Your task to perform on an android device: turn off javascript in the chrome app Image 0: 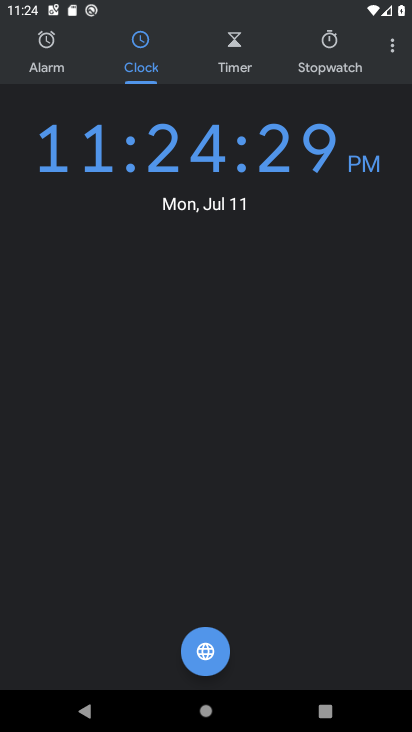
Step 0: press back button
Your task to perform on an android device: turn off javascript in the chrome app Image 1: 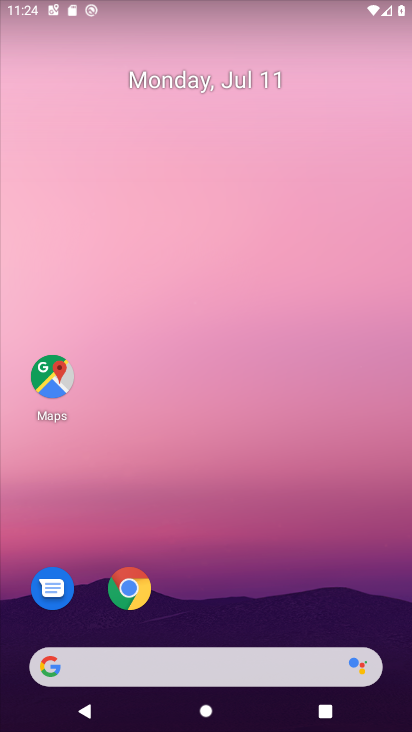
Step 1: drag from (247, 678) to (101, 165)
Your task to perform on an android device: turn off javascript in the chrome app Image 2: 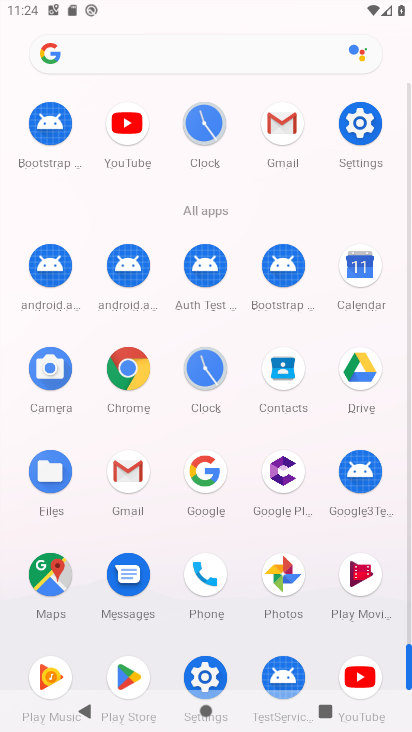
Step 2: click (123, 366)
Your task to perform on an android device: turn off javascript in the chrome app Image 3: 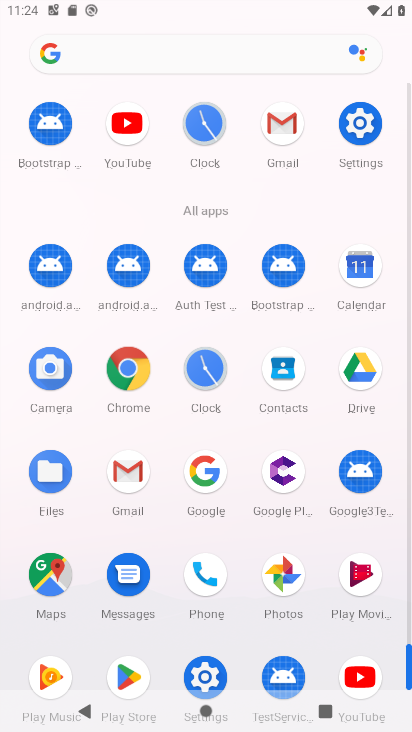
Step 3: click (127, 362)
Your task to perform on an android device: turn off javascript in the chrome app Image 4: 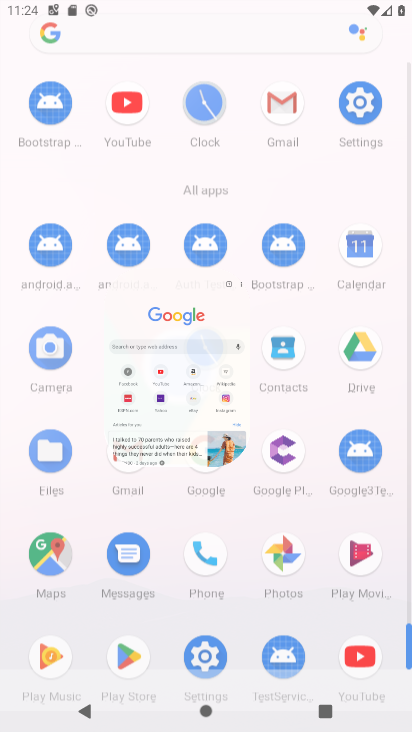
Step 4: click (124, 356)
Your task to perform on an android device: turn off javascript in the chrome app Image 5: 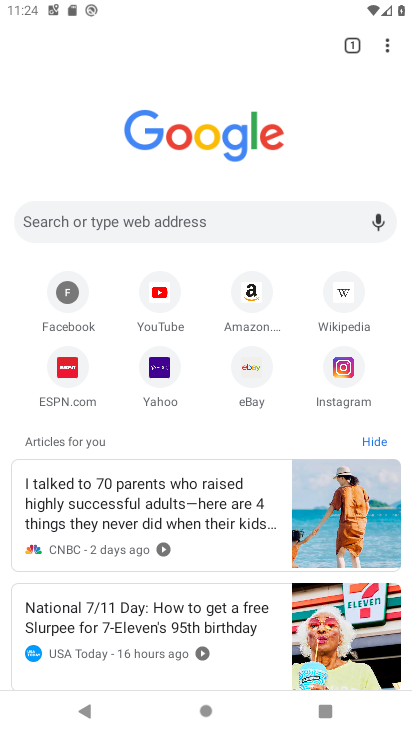
Step 5: click (384, 55)
Your task to perform on an android device: turn off javascript in the chrome app Image 6: 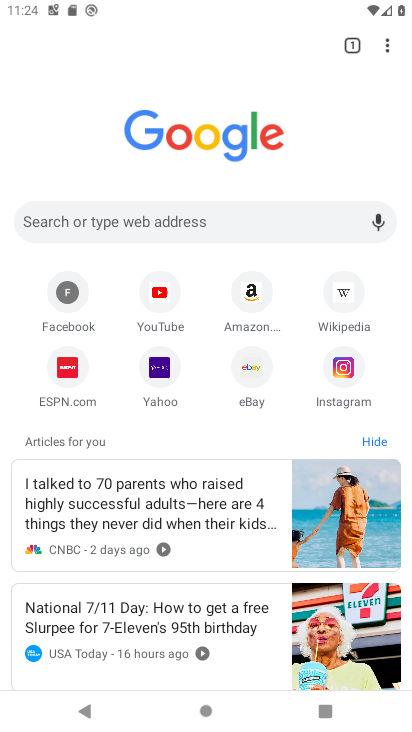
Step 6: click (389, 45)
Your task to perform on an android device: turn off javascript in the chrome app Image 7: 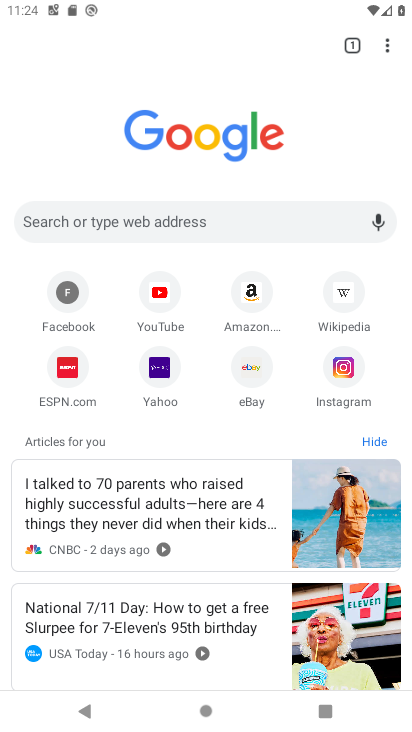
Step 7: click (387, 42)
Your task to perform on an android device: turn off javascript in the chrome app Image 8: 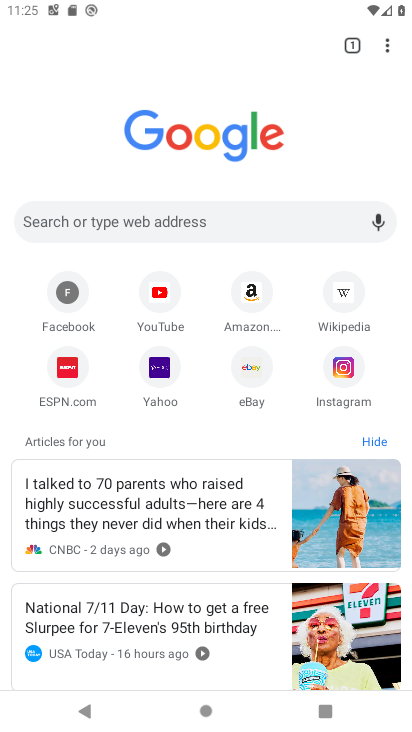
Step 8: click (388, 49)
Your task to perform on an android device: turn off javascript in the chrome app Image 9: 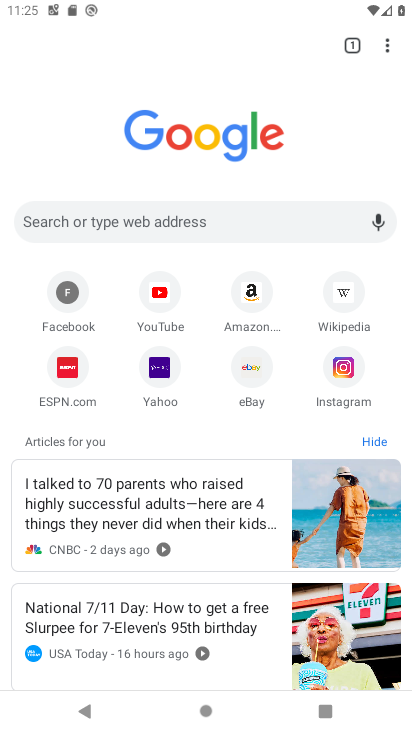
Step 9: click (389, 40)
Your task to perform on an android device: turn off javascript in the chrome app Image 10: 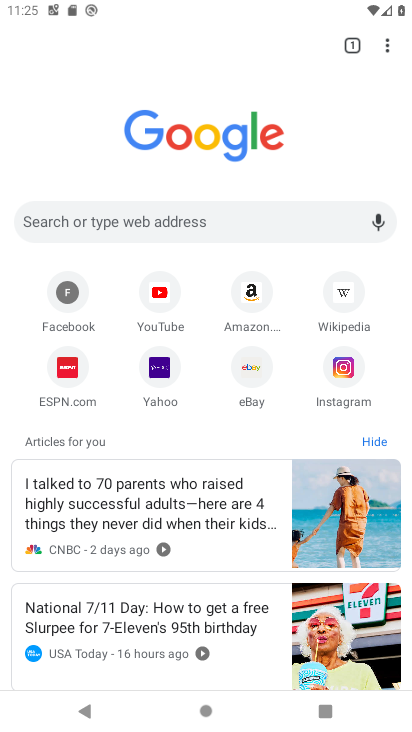
Step 10: click (384, 52)
Your task to perform on an android device: turn off javascript in the chrome app Image 11: 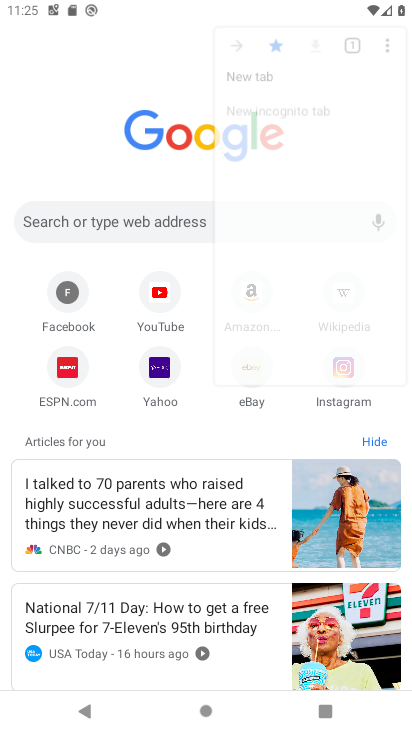
Step 11: click (384, 50)
Your task to perform on an android device: turn off javascript in the chrome app Image 12: 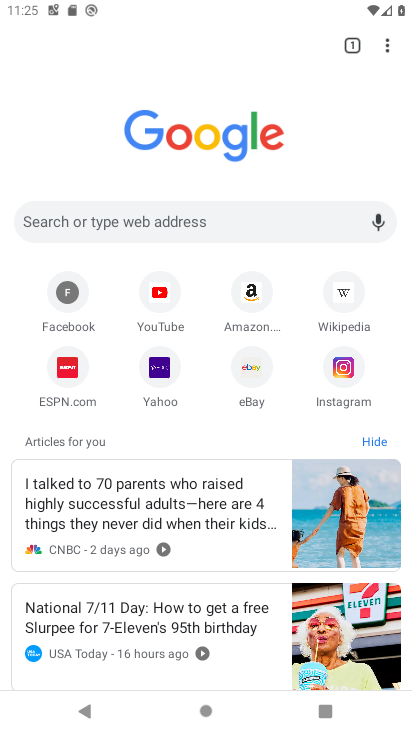
Step 12: click (393, 65)
Your task to perform on an android device: turn off javascript in the chrome app Image 13: 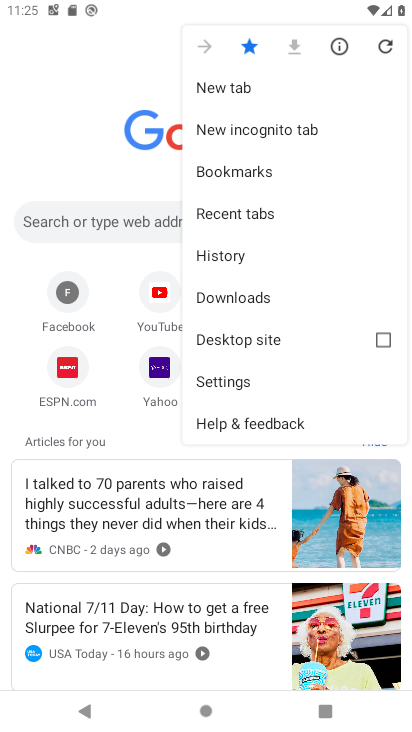
Step 13: click (232, 377)
Your task to perform on an android device: turn off javascript in the chrome app Image 14: 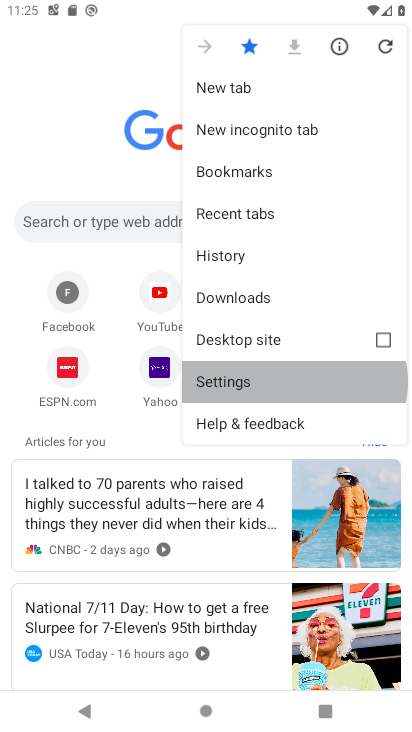
Step 14: click (232, 377)
Your task to perform on an android device: turn off javascript in the chrome app Image 15: 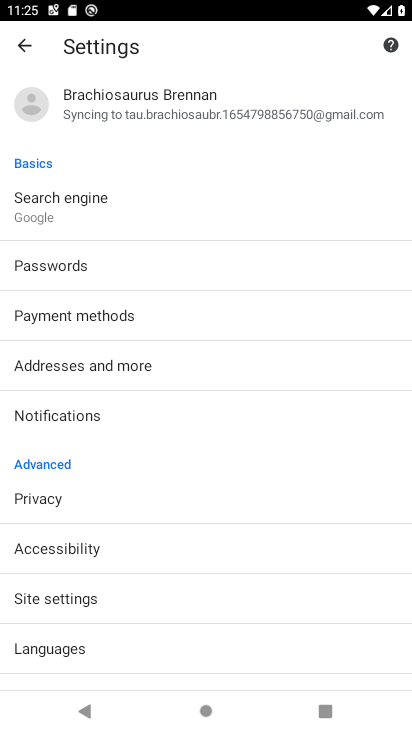
Step 15: click (40, 593)
Your task to perform on an android device: turn off javascript in the chrome app Image 16: 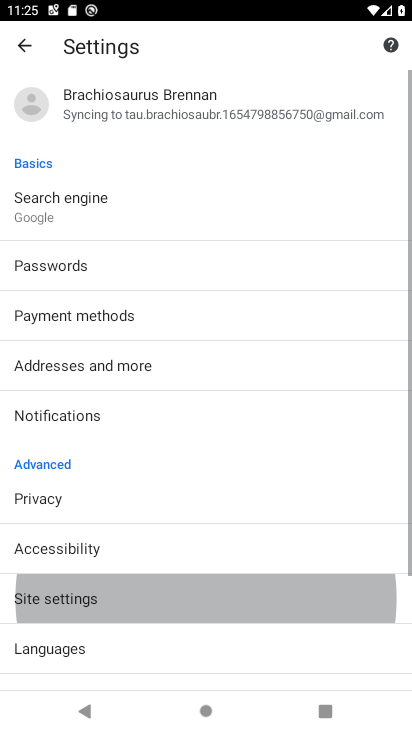
Step 16: click (40, 592)
Your task to perform on an android device: turn off javascript in the chrome app Image 17: 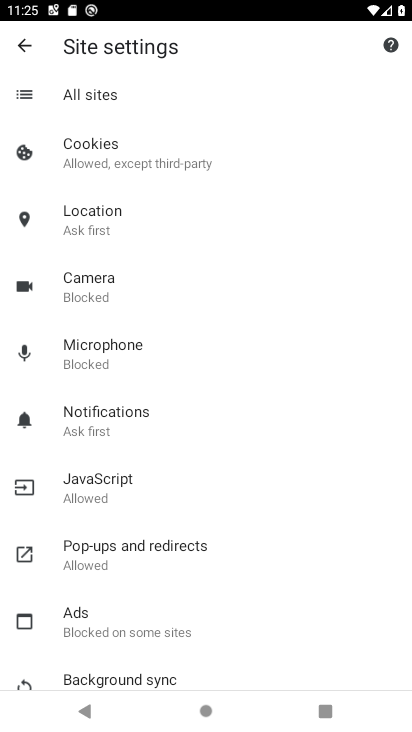
Step 17: click (86, 487)
Your task to perform on an android device: turn off javascript in the chrome app Image 18: 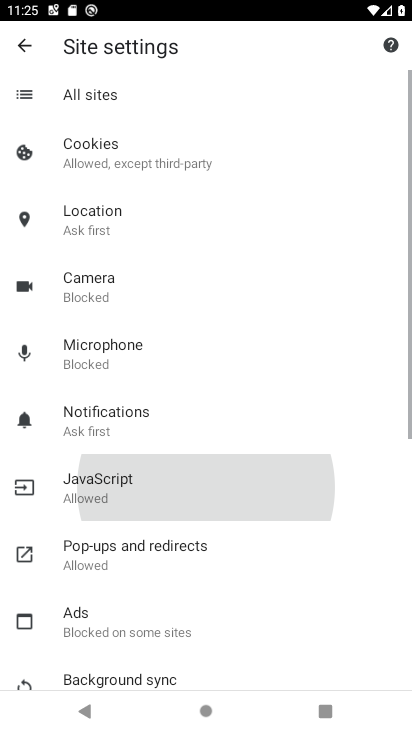
Step 18: click (86, 487)
Your task to perform on an android device: turn off javascript in the chrome app Image 19: 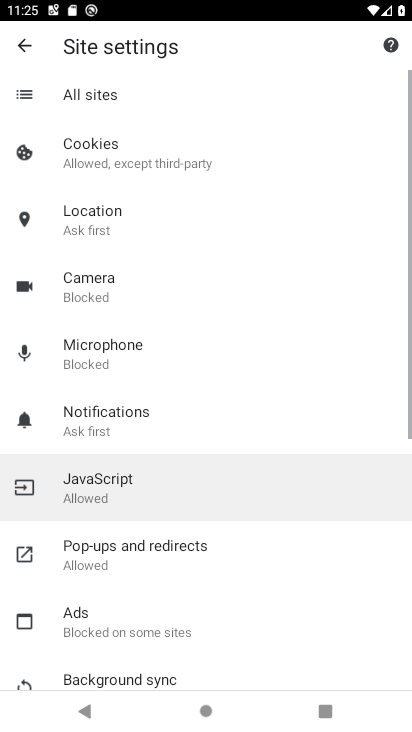
Step 19: click (86, 487)
Your task to perform on an android device: turn off javascript in the chrome app Image 20: 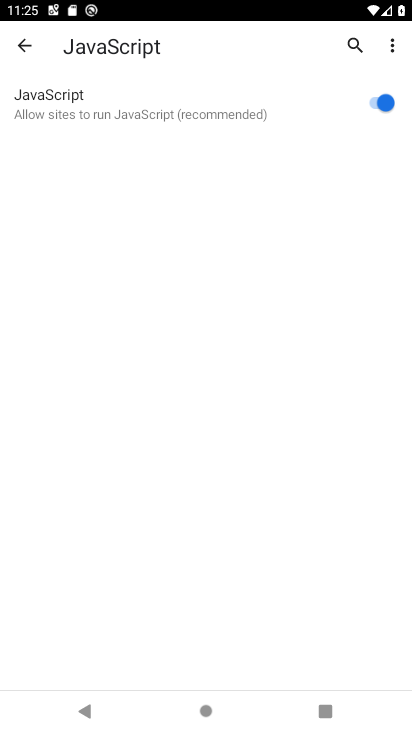
Step 20: click (370, 96)
Your task to perform on an android device: turn off javascript in the chrome app Image 21: 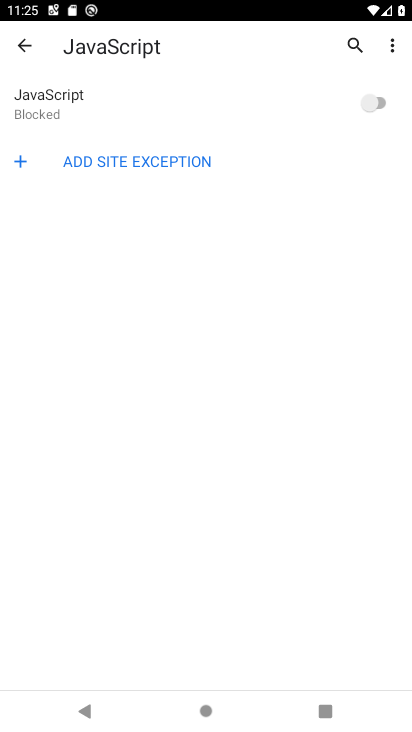
Step 21: task complete